Your task to perform on an android device: turn off location history Image 0: 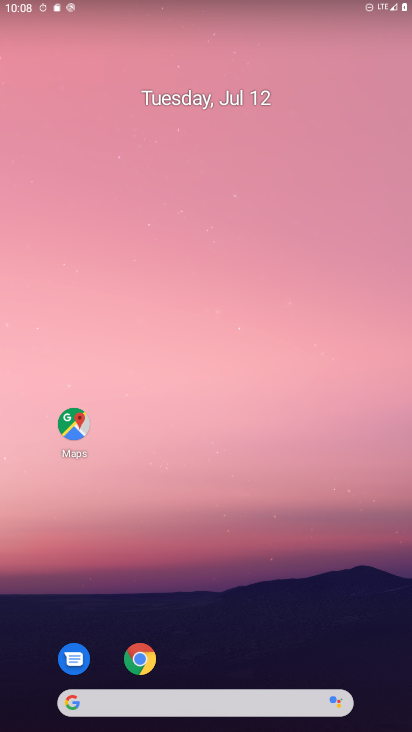
Step 0: drag from (374, 681) to (266, 25)
Your task to perform on an android device: turn off location history Image 1: 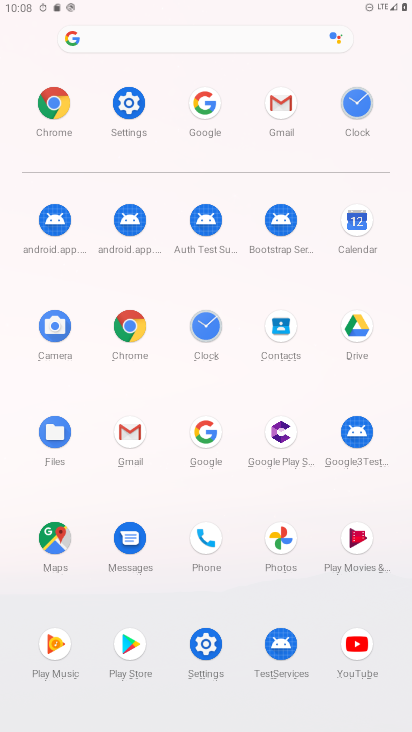
Step 1: click (219, 647)
Your task to perform on an android device: turn off location history Image 2: 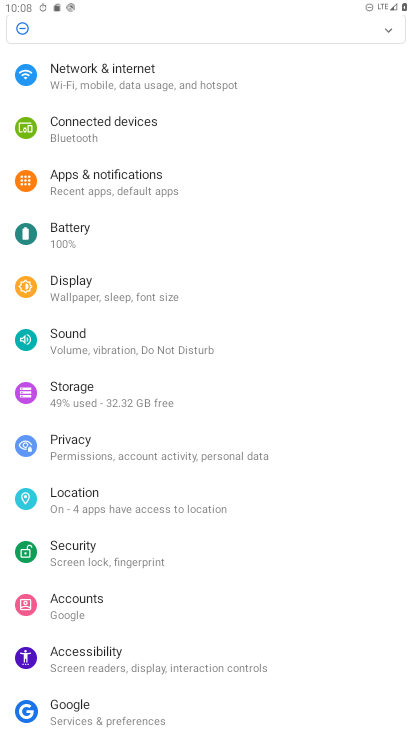
Step 2: click (133, 492)
Your task to perform on an android device: turn off location history Image 3: 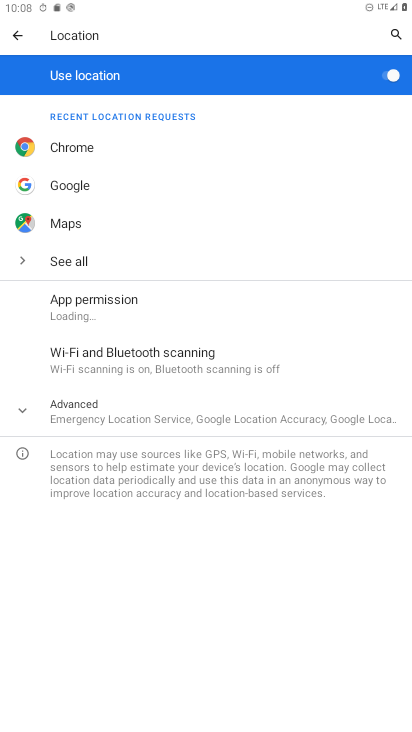
Step 3: click (122, 422)
Your task to perform on an android device: turn off location history Image 4: 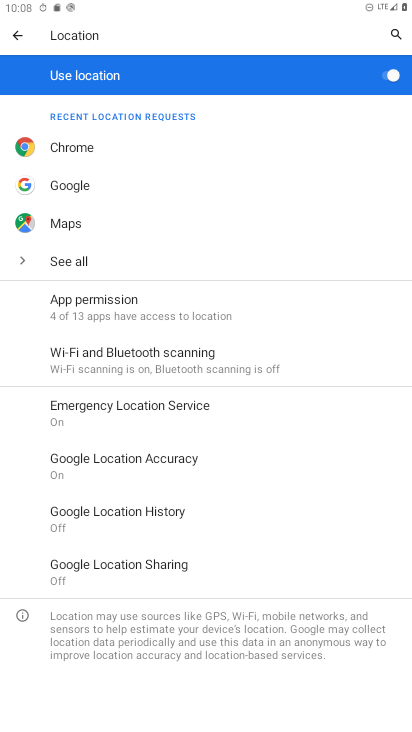
Step 4: click (148, 507)
Your task to perform on an android device: turn off location history Image 5: 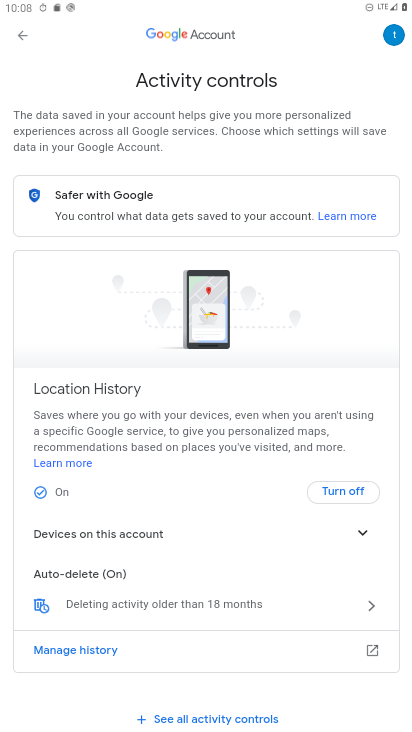
Step 5: click (348, 489)
Your task to perform on an android device: turn off location history Image 6: 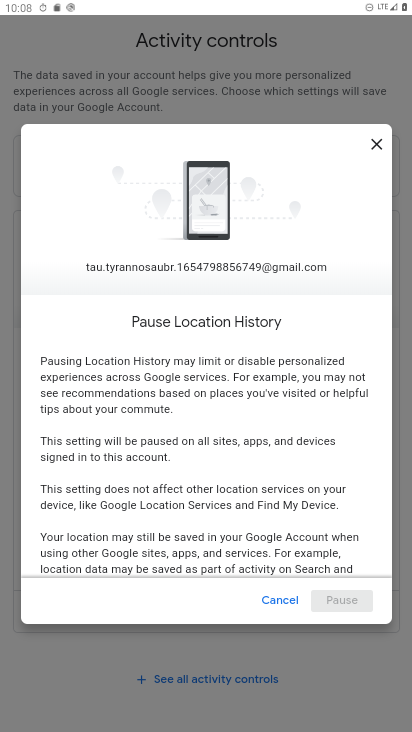
Step 6: task complete